Your task to perform on an android device: Open Maps and search for coffee Image 0: 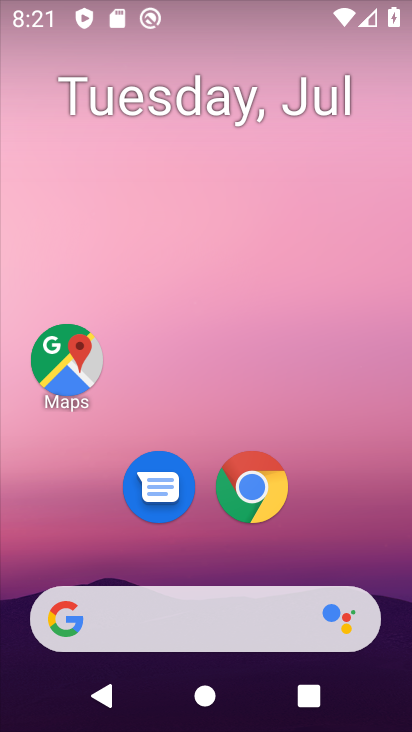
Step 0: click (67, 368)
Your task to perform on an android device: Open Maps and search for coffee Image 1: 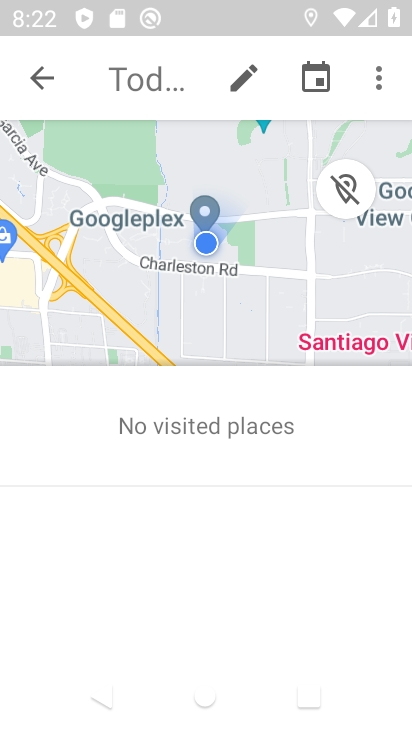
Step 1: press back button
Your task to perform on an android device: Open Maps and search for coffee Image 2: 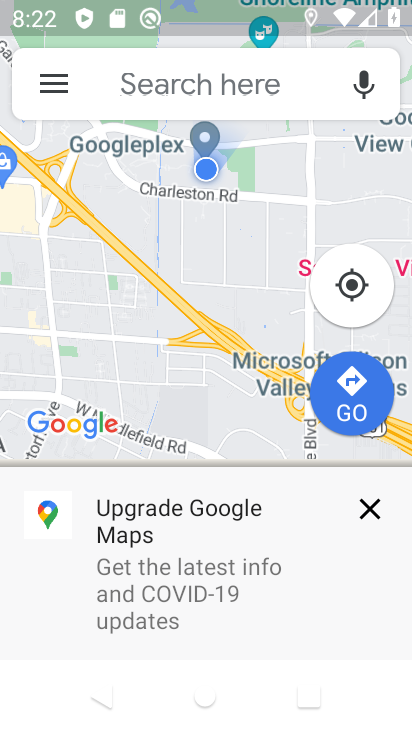
Step 2: click (203, 81)
Your task to perform on an android device: Open Maps and search for coffee Image 3: 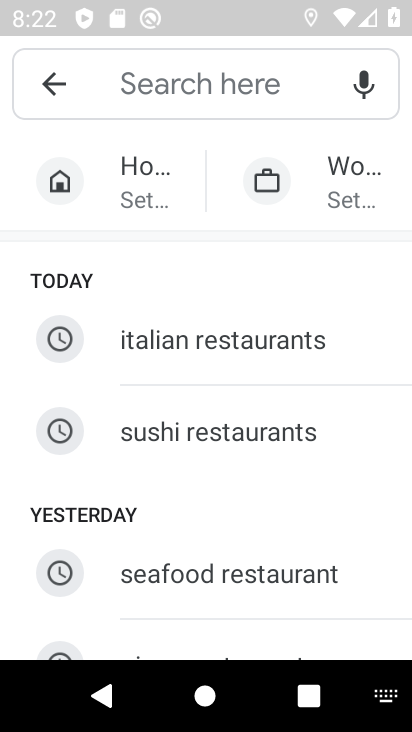
Step 3: drag from (212, 597) to (269, 30)
Your task to perform on an android device: Open Maps and search for coffee Image 4: 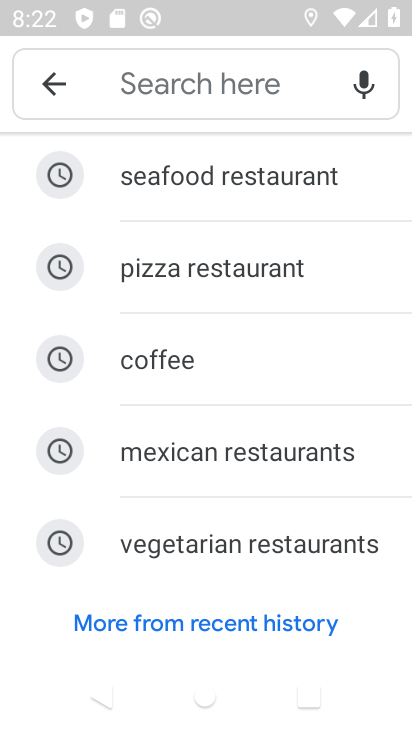
Step 4: click (175, 354)
Your task to perform on an android device: Open Maps and search for coffee Image 5: 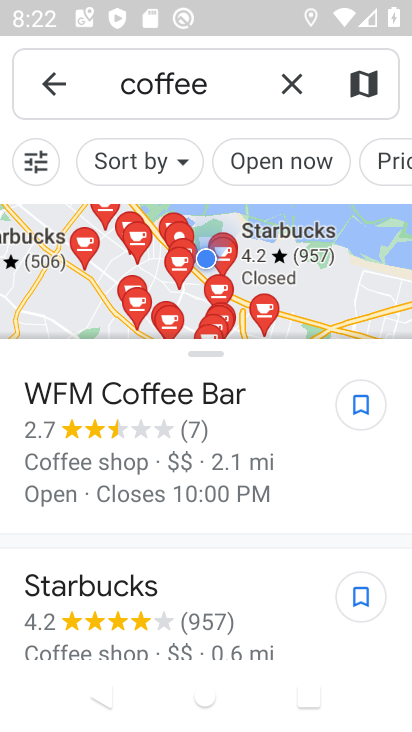
Step 5: task complete